Your task to perform on an android device: turn on priority inbox in the gmail app Image 0: 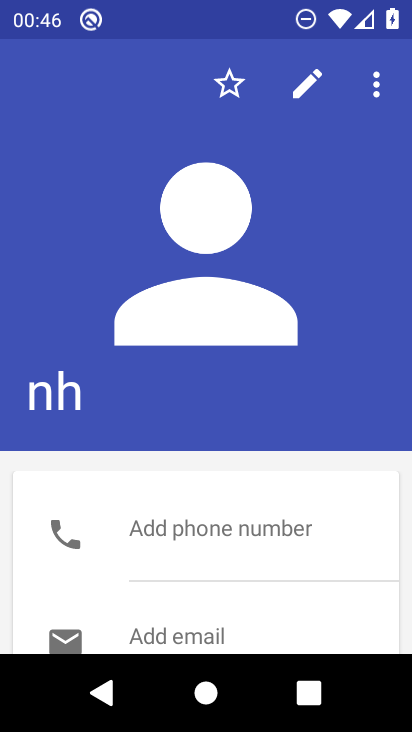
Step 0: press home button
Your task to perform on an android device: turn on priority inbox in the gmail app Image 1: 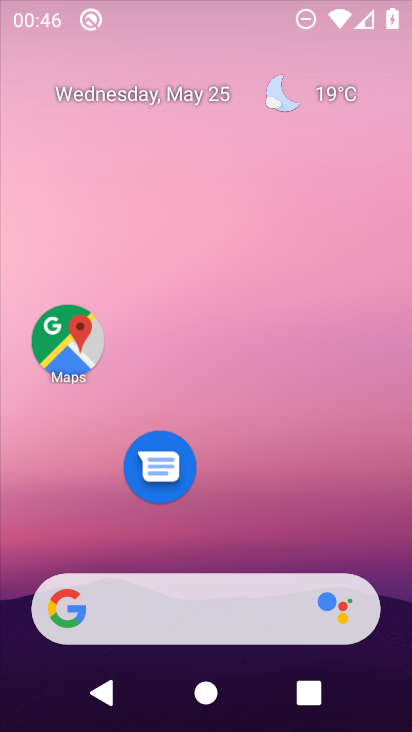
Step 1: drag from (198, 559) to (219, 22)
Your task to perform on an android device: turn on priority inbox in the gmail app Image 2: 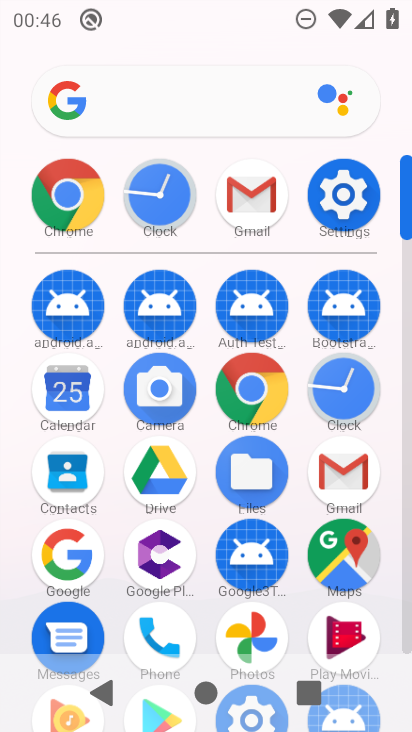
Step 2: click (343, 460)
Your task to perform on an android device: turn on priority inbox in the gmail app Image 3: 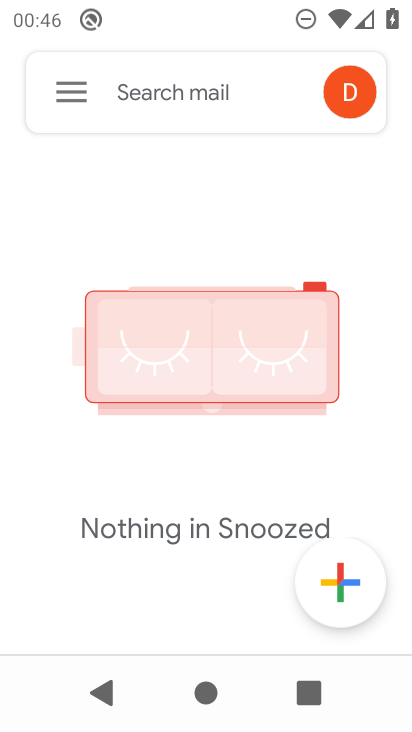
Step 3: click (63, 100)
Your task to perform on an android device: turn on priority inbox in the gmail app Image 4: 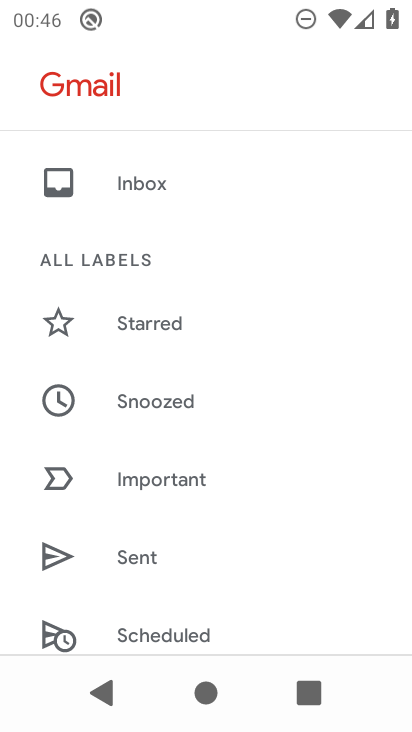
Step 4: drag from (215, 597) to (317, 5)
Your task to perform on an android device: turn on priority inbox in the gmail app Image 5: 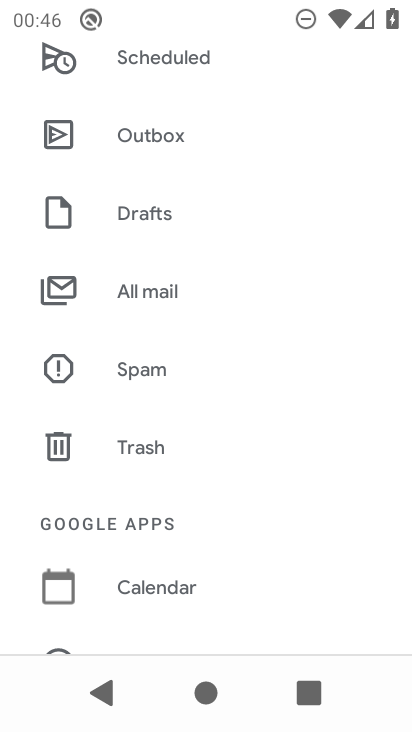
Step 5: drag from (173, 530) to (242, 138)
Your task to perform on an android device: turn on priority inbox in the gmail app Image 6: 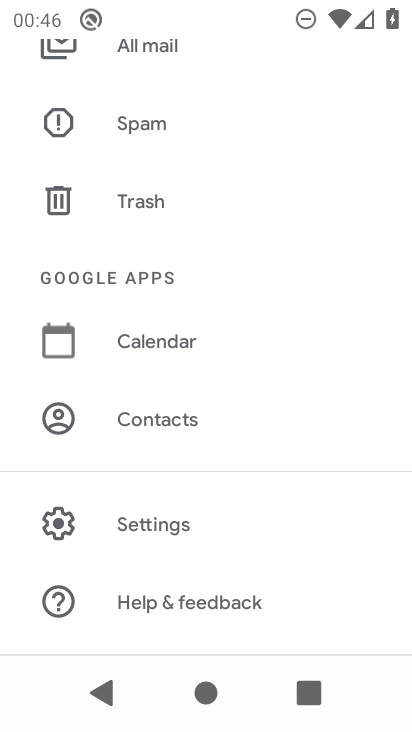
Step 6: click (153, 521)
Your task to perform on an android device: turn on priority inbox in the gmail app Image 7: 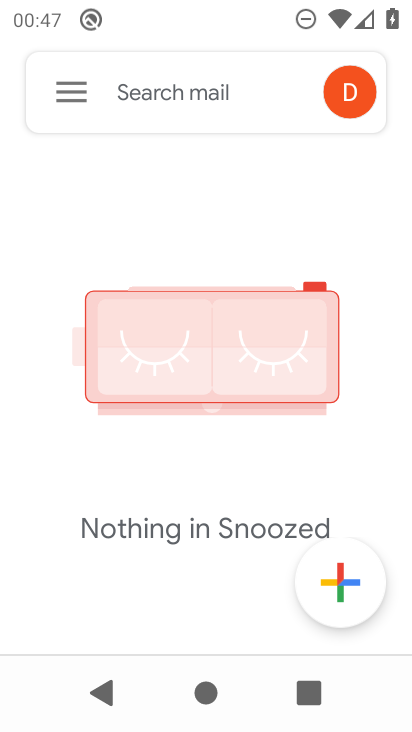
Step 7: drag from (157, 510) to (211, 112)
Your task to perform on an android device: turn on priority inbox in the gmail app Image 8: 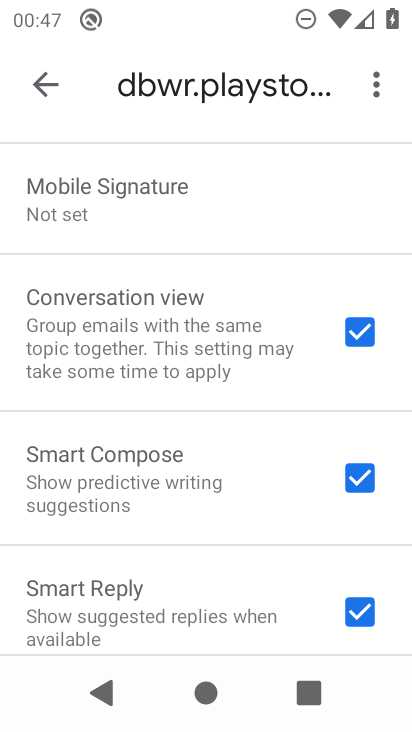
Step 8: drag from (181, 494) to (210, 206)
Your task to perform on an android device: turn on priority inbox in the gmail app Image 9: 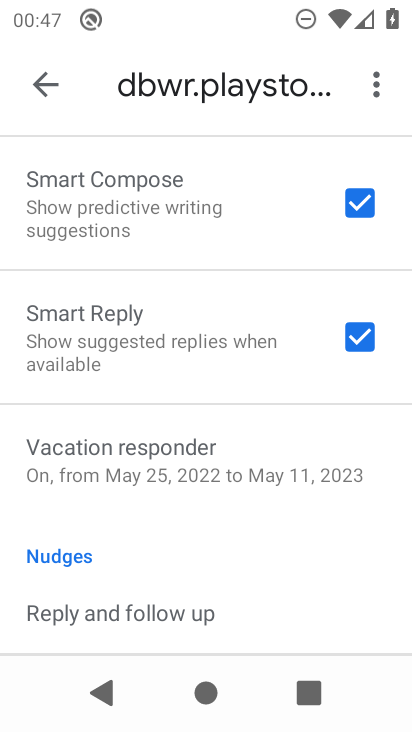
Step 9: drag from (188, 451) to (239, 210)
Your task to perform on an android device: turn on priority inbox in the gmail app Image 10: 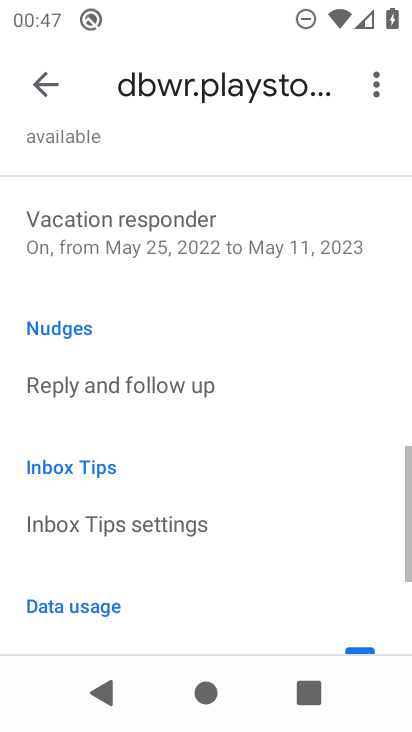
Step 10: drag from (250, 211) to (256, 710)
Your task to perform on an android device: turn on priority inbox in the gmail app Image 11: 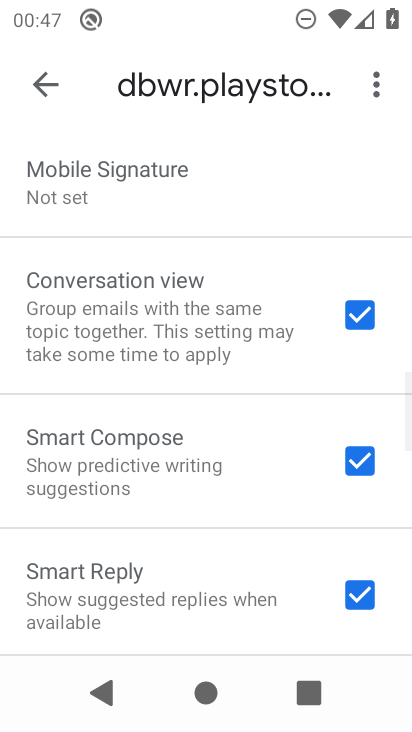
Step 11: drag from (154, 299) to (317, 715)
Your task to perform on an android device: turn on priority inbox in the gmail app Image 12: 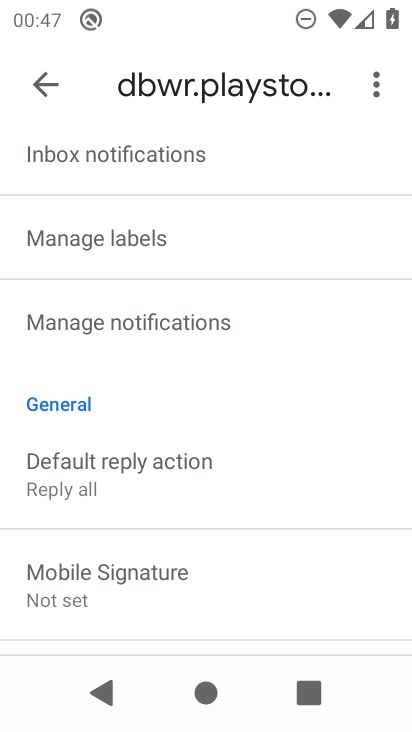
Step 12: drag from (94, 251) to (305, 681)
Your task to perform on an android device: turn on priority inbox in the gmail app Image 13: 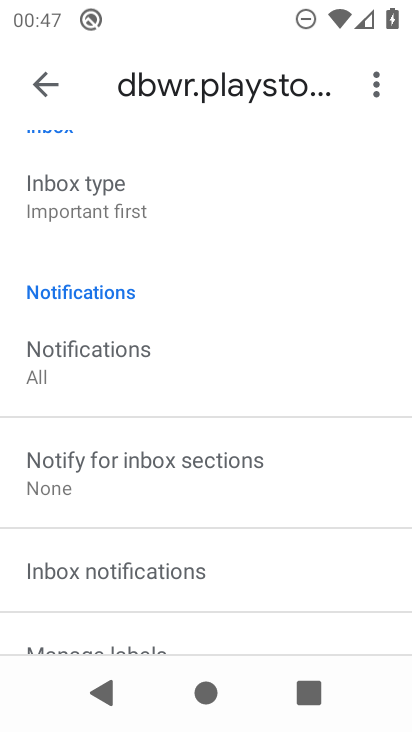
Step 13: drag from (78, 223) to (320, 724)
Your task to perform on an android device: turn on priority inbox in the gmail app Image 14: 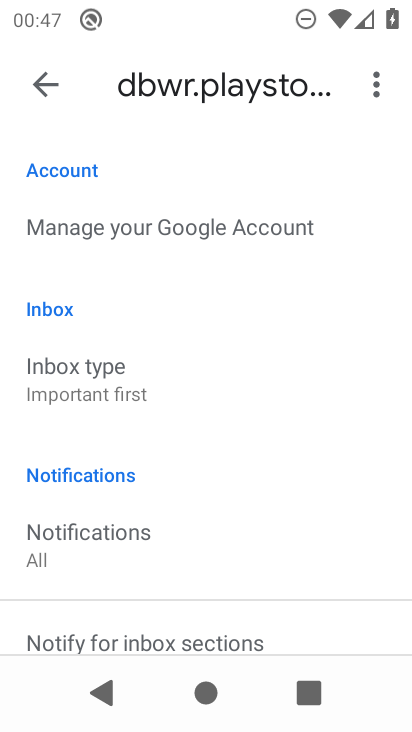
Step 14: click (133, 372)
Your task to perform on an android device: turn on priority inbox in the gmail app Image 15: 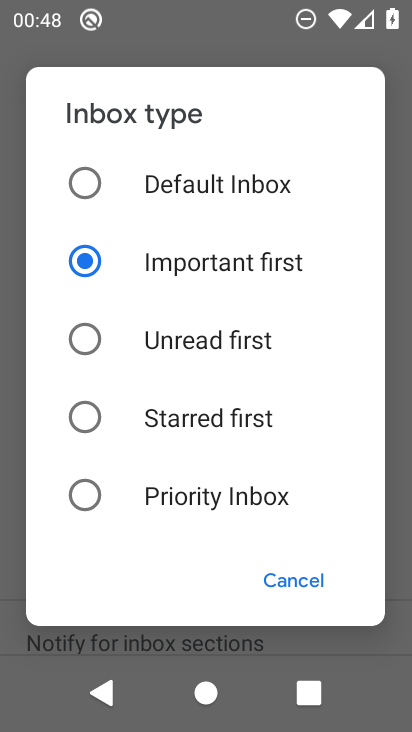
Step 15: click (98, 490)
Your task to perform on an android device: turn on priority inbox in the gmail app Image 16: 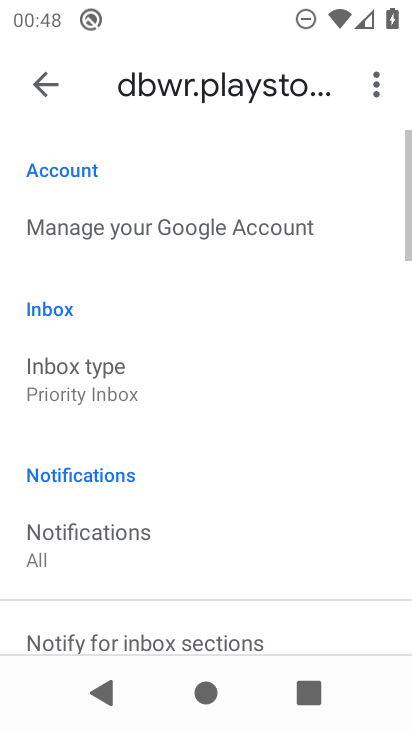
Step 16: drag from (174, 517) to (241, 177)
Your task to perform on an android device: turn on priority inbox in the gmail app Image 17: 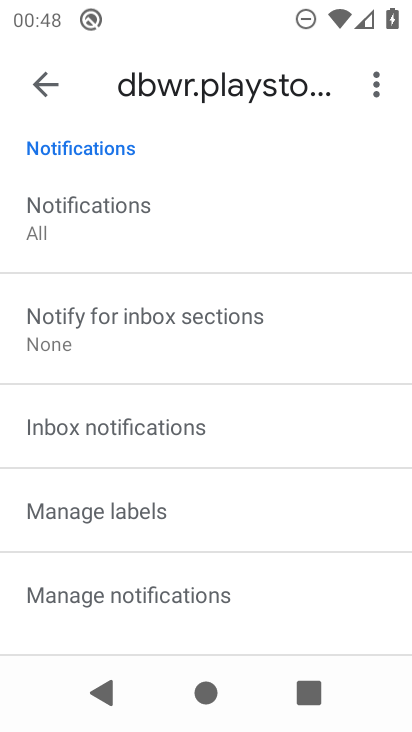
Step 17: drag from (212, 575) to (229, 306)
Your task to perform on an android device: turn on priority inbox in the gmail app Image 18: 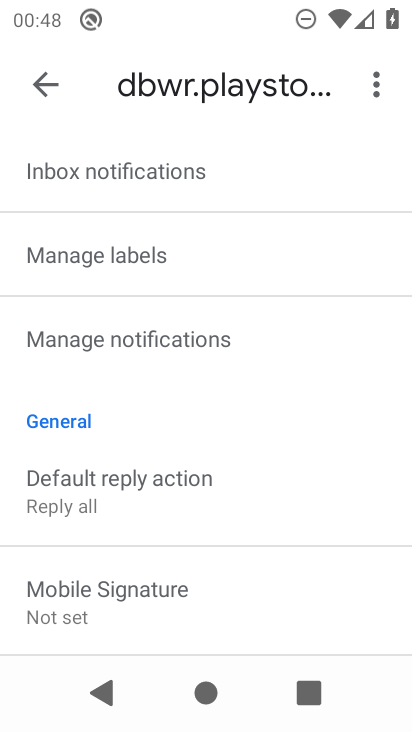
Step 18: drag from (261, 232) to (189, 709)
Your task to perform on an android device: turn on priority inbox in the gmail app Image 19: 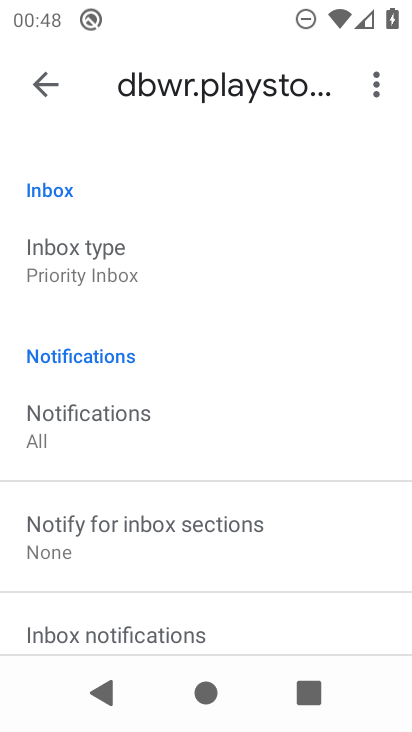
Step 19: drag from (192, 493) to (233, 201)
Your task to perform on an android device: turn on priority inbox in the gmail app Image 20: 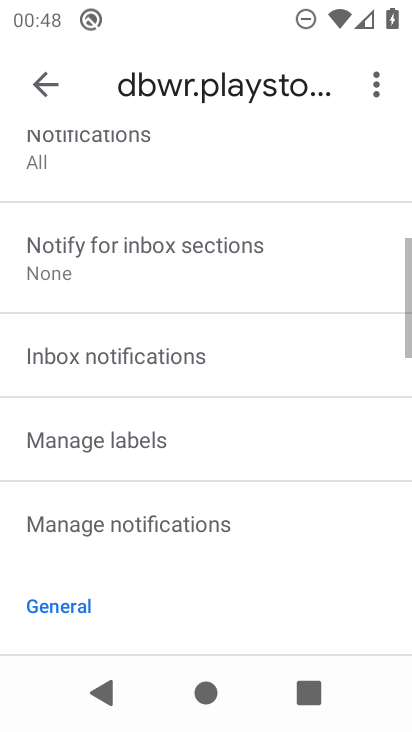
Step 20: drag from (274, 211) to (189, 730)
Your task to perform on an android device: turn on priority inbox in the gmail app Image 21: 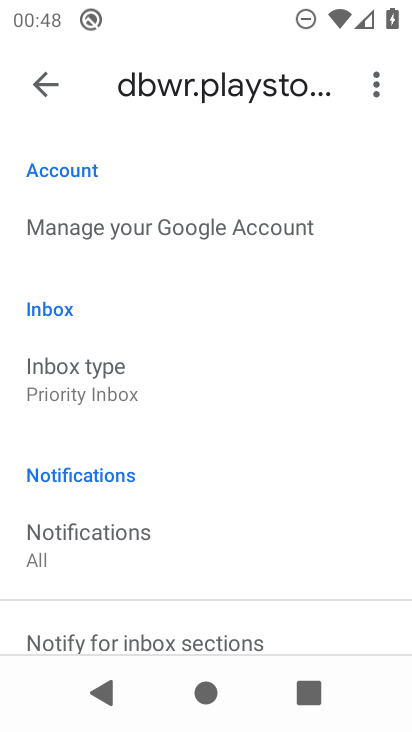
Step 21: click (143, 370)
Your task to perform on an android device: turn on priority inbox in the gmail app Image 22: 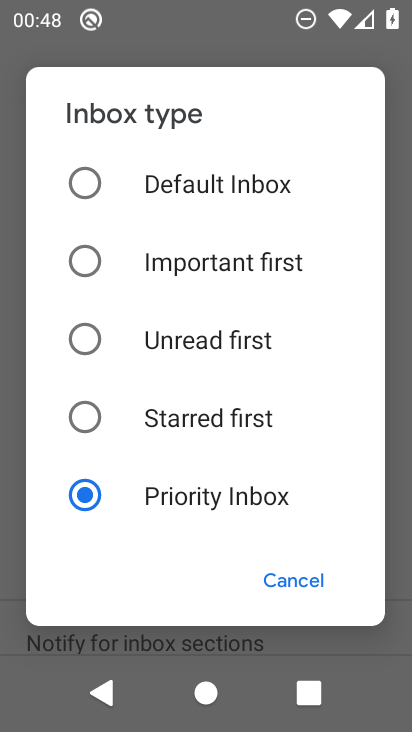
Step 22: task complete